Your task to perform on an android device: turn notification dots on Image 0: 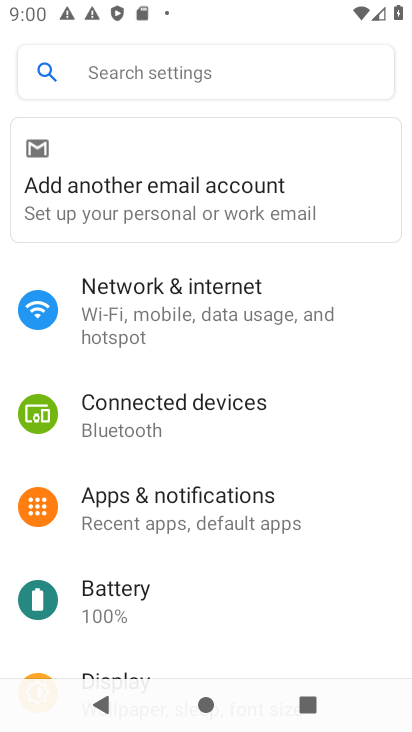
Step 0: press home button
Your task to perform on an android device: turn notification dots on Image 1: 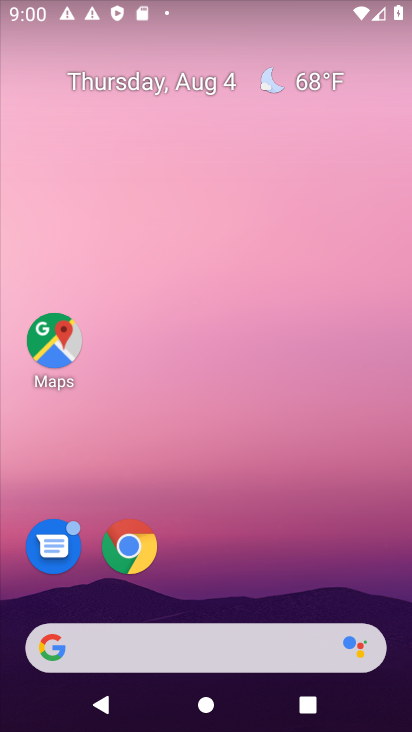
Step 1: drag from (239, 587) to (290, 0)
Your task to perform on an android device: turn notification dots on Image 2: 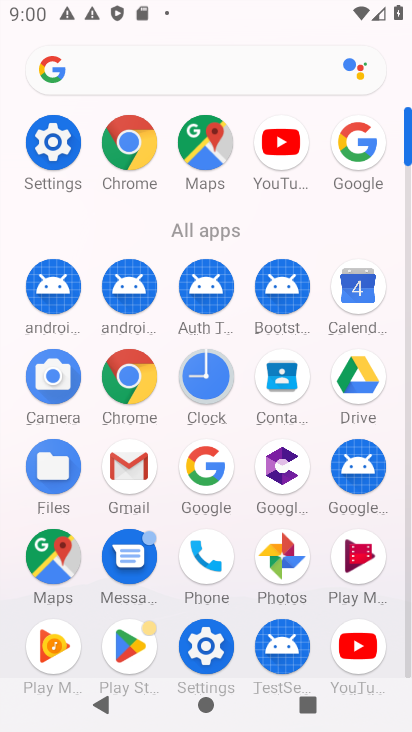
Step 2: click (50, 149)
Your task to perform on an android device: turn notification dots on Image 3: 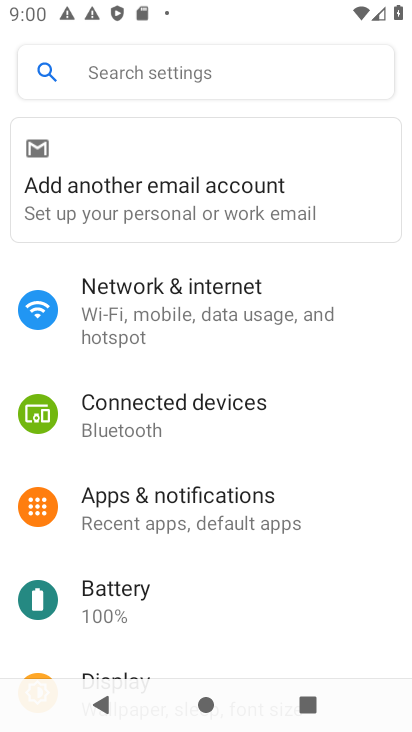
Step 3: click (173, 498)
Your task to perform on an android device: turn notification dots on Image 4: 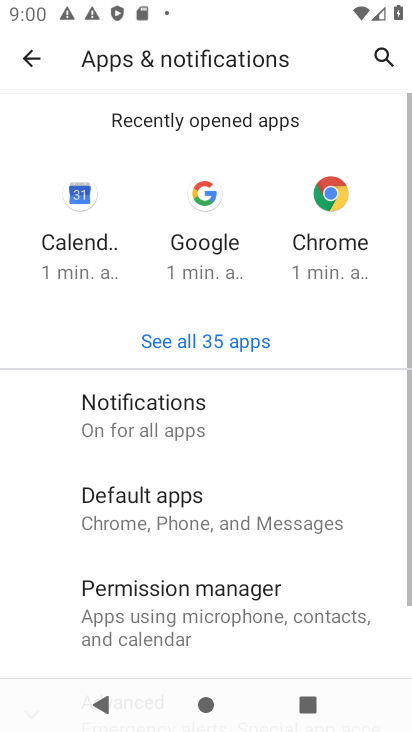
Step 4: drag from (314, 593) to (285, 403)
Your task to perform on an android device: turn notification dots on Image 5: 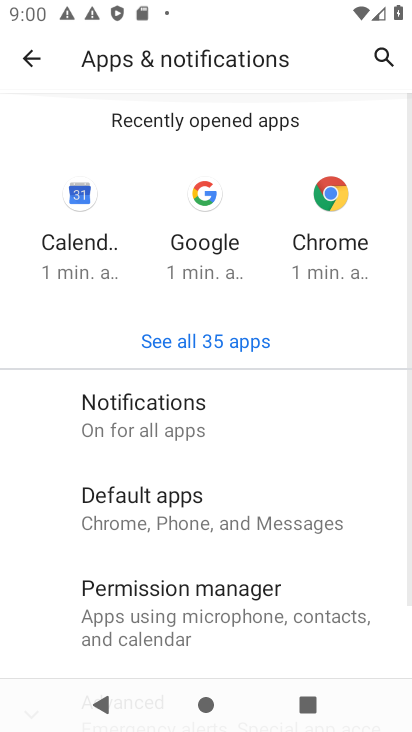
Step 5: click (164, 412)
Your task to perform on an android device: turn notification dots on Image 6: 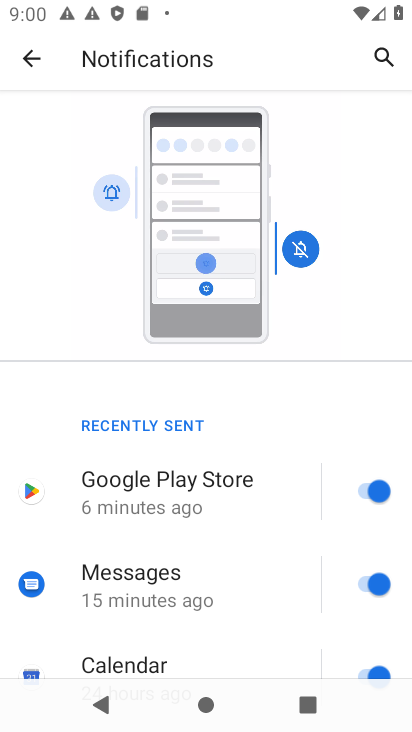
Step 6: drag from (284, 570) to (312, 87)
Your task to perform on an android device: turn notification dots on Image 7: 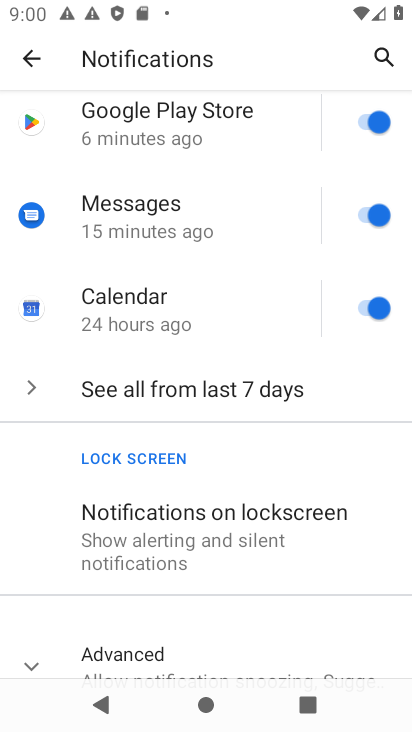
Step 7: drag from (328, 640) to (363, 300)
Your task to perform on an android device: turn notification dots on Image 8: 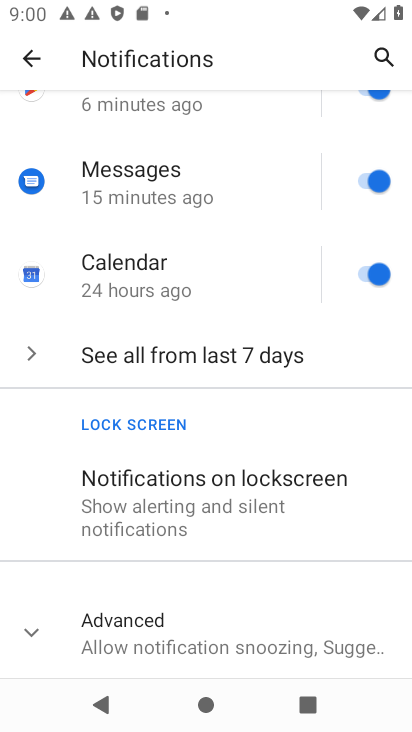
Step 8: click (136, 646)
Your task to perform on an android device: turn notification dots on Image 9: 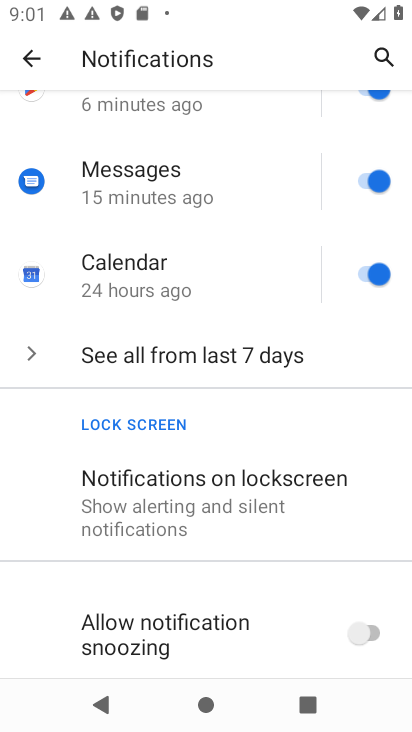
Step 9: task complete